Your task to perform on an android device: Search for sushi restaurants on Maps Image 0: 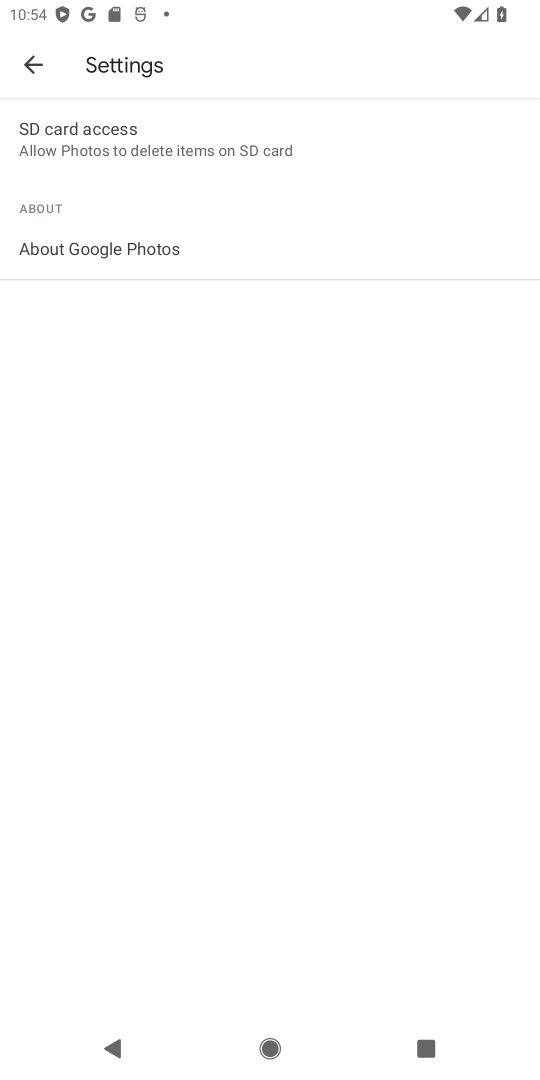
Step 0: press home button
Your task to perform on an android device: Search for sushi restaurants on Maps Image 1: 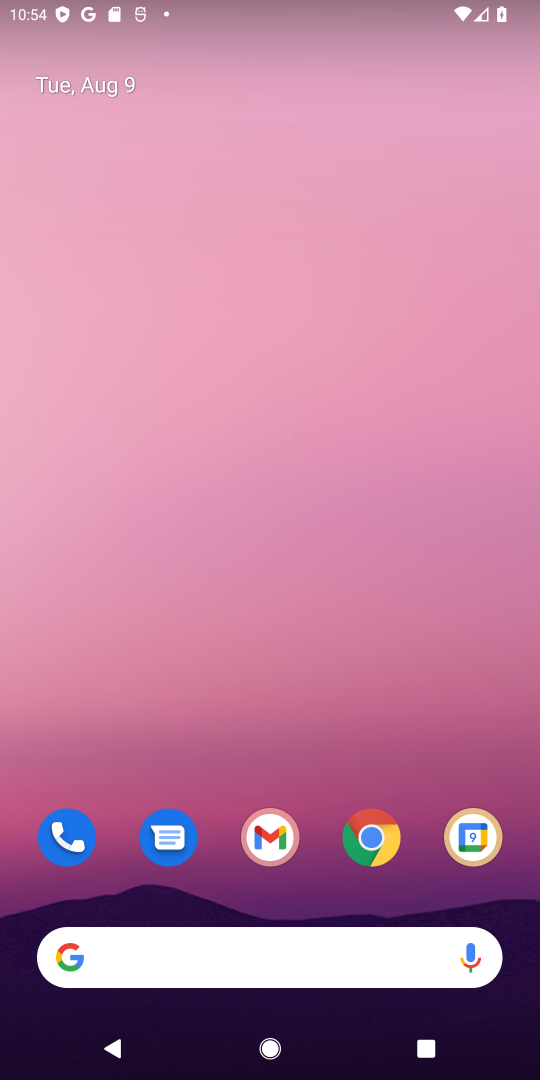
Step 1: drag from (316, 794) to (343, 151)
Your task to perform on an android device: Search for sushi restaurants on Maps Image 2: 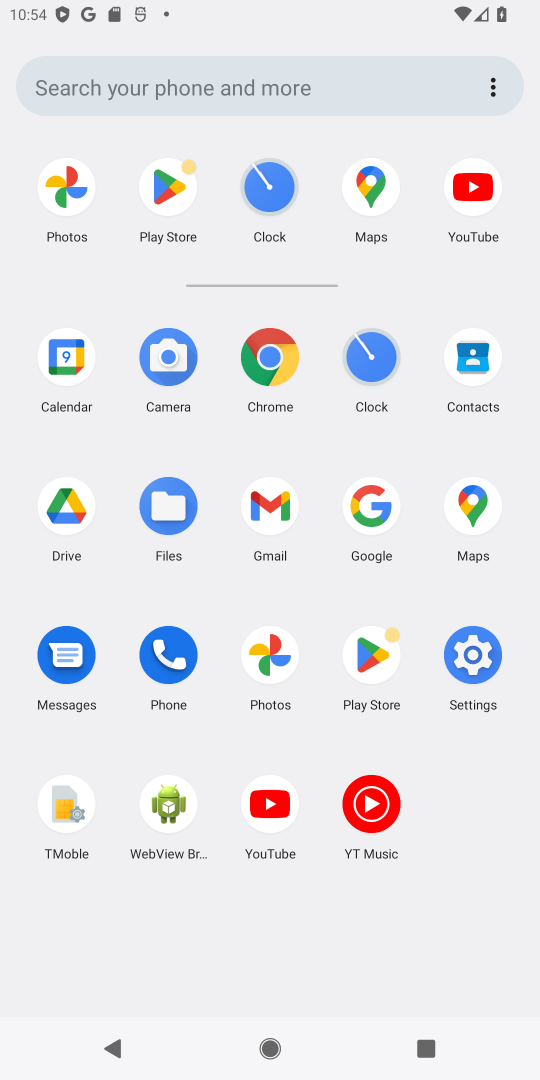
Step 2: click (479, 503)
Your task to perform on an android device: Search for sushi restaurants on Maps Image 3: 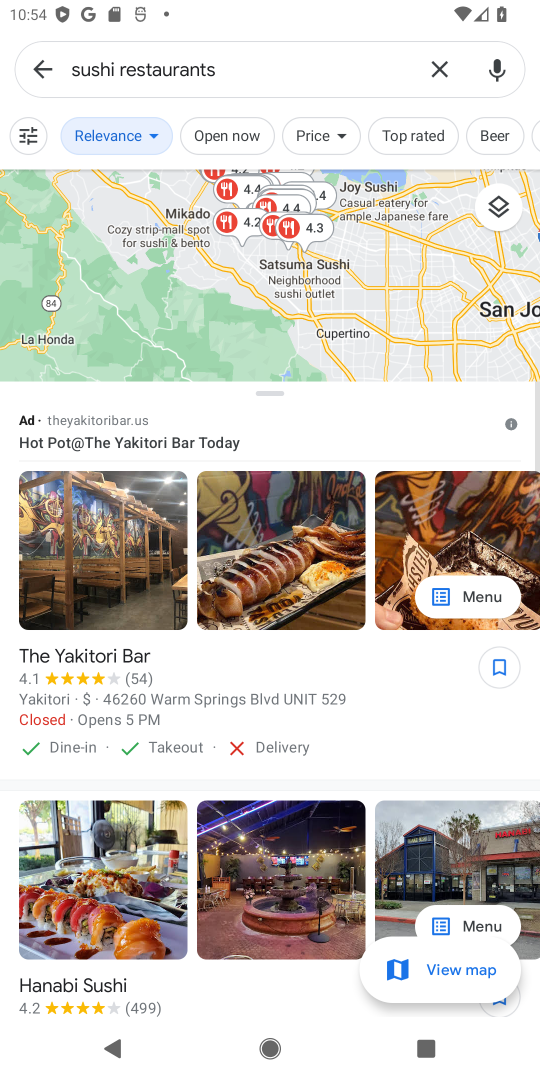
Step 3: task complete